Your task to perform on an android device: Go to battery settings Image 0: 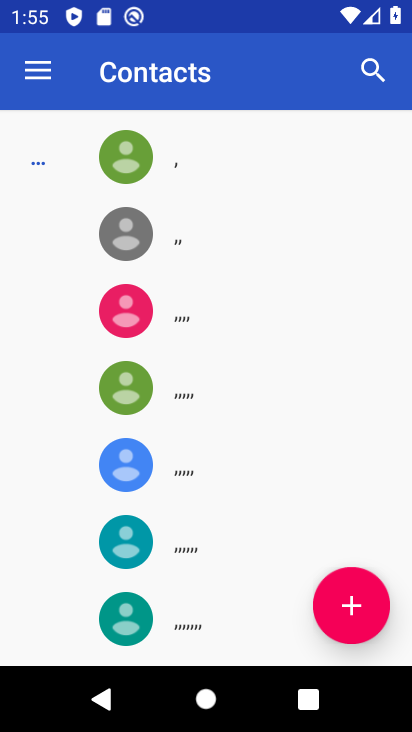
Step 0: press home button
Your task to perform on an android device: Go to battery settings Image 1: 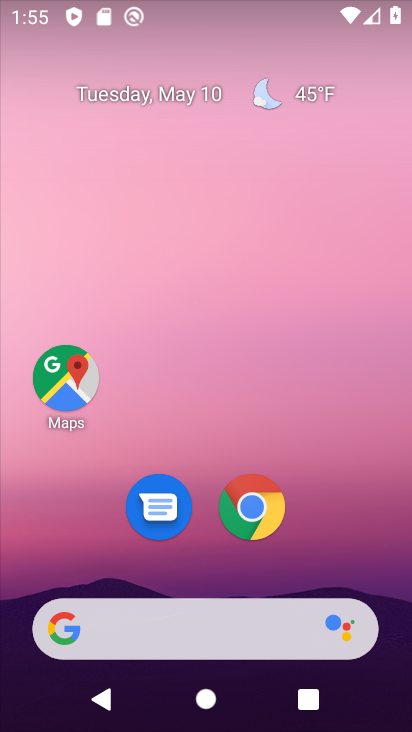
Step 1: drag from (357, 499) to (216, 131)
Your task to perform on an android device: Go to battery settings Image 2: 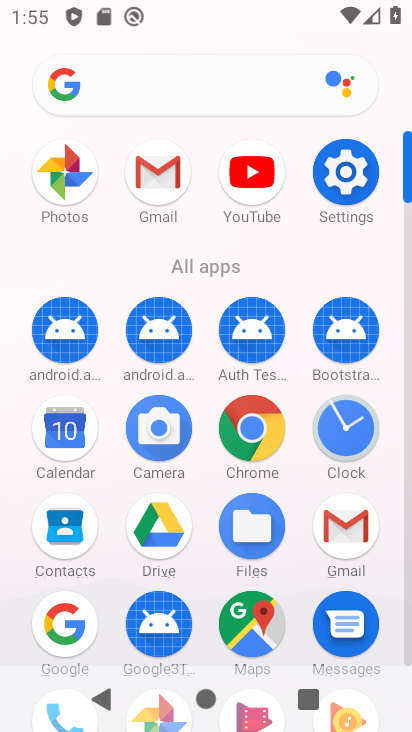
Step 2: click (353, 176)
Your task to perform on an android device: Go to battery settings Image 3: 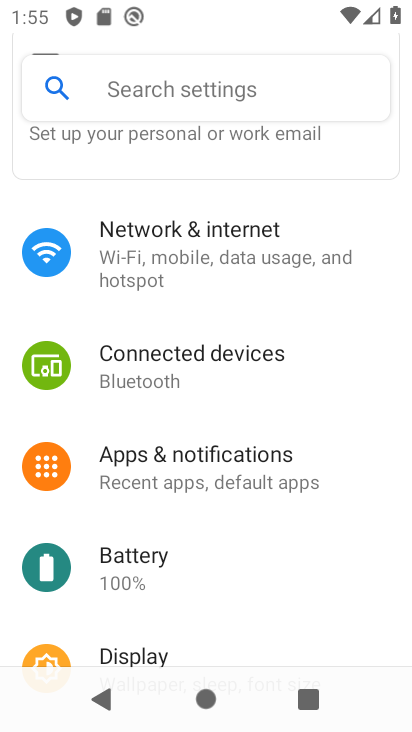
Step 3: click (130, 564)
Your task to perform on an android device: Go to battery settings Image 4: 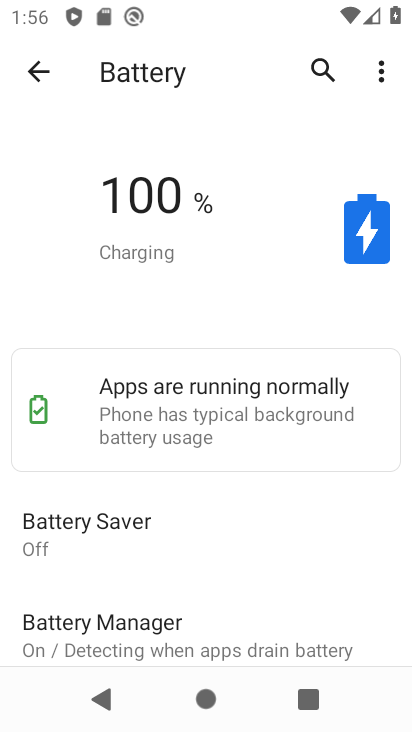
Step 4: task complete